Your task to perform on an android device: Go to ESPN.com Image 0: 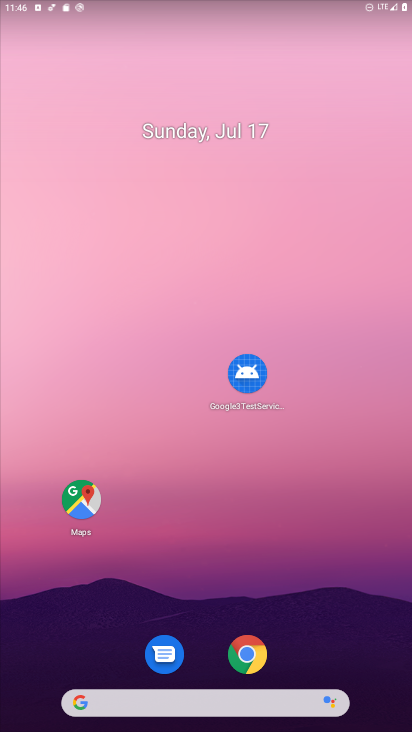
Step 0: click (244, 659)
Your task to perform on an android device: Go to ESPN.com Image 1: 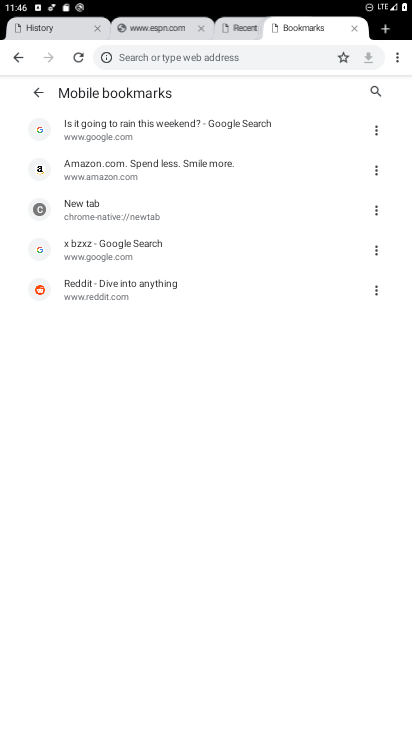
Step 1: click (384, 33)
Your task to perform on an android device: Go to ESPN.com Image 2: 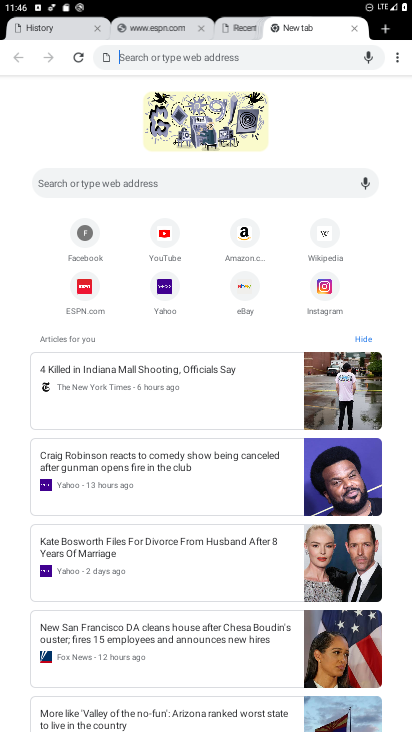
Step 2: click (89, 311)
Your task to perform on an android device: Go to ESPN.com Image 3: 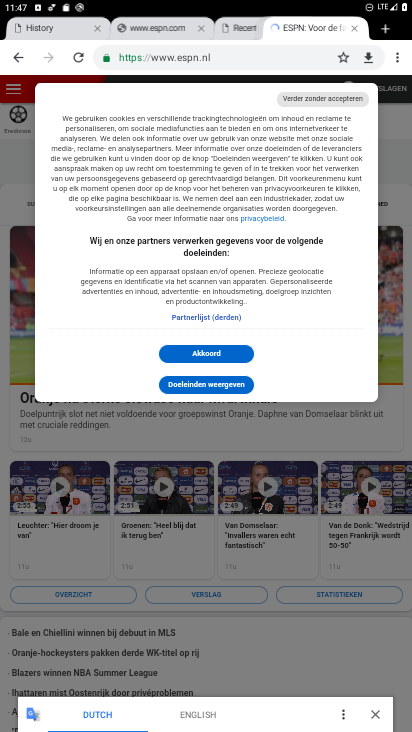
Step 3: task complete